Your task to perform on an android device: Open the stopwatch Image 0: 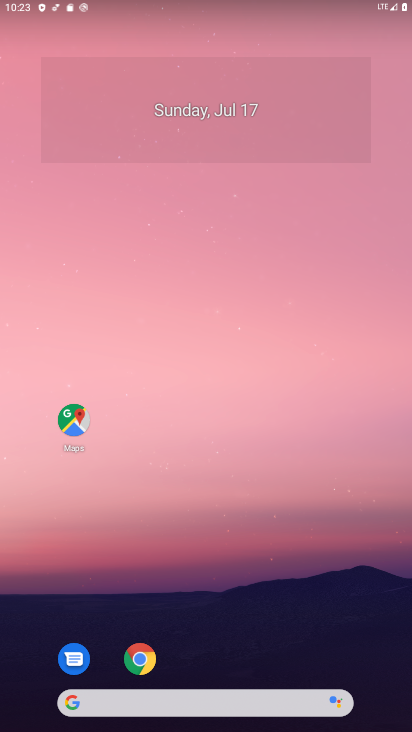
Step 0: drag from (183, 640) to (255, 122)
Your task to perform on an android device: Open the stopwatch Image 1: 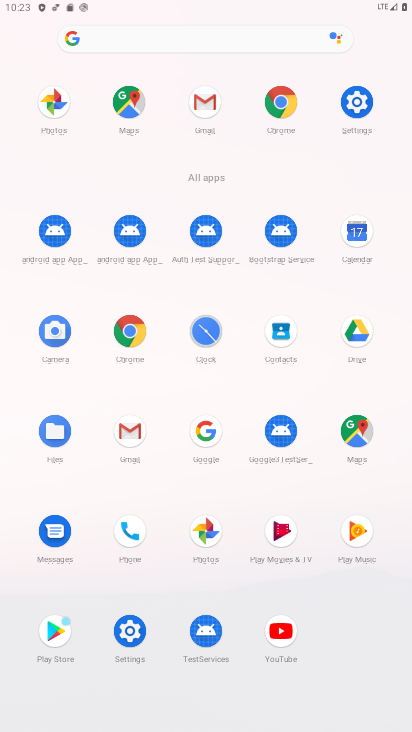
Step 1: click (192, 330)
Your task to perform on an android device: Open the stopwatch Image 2: 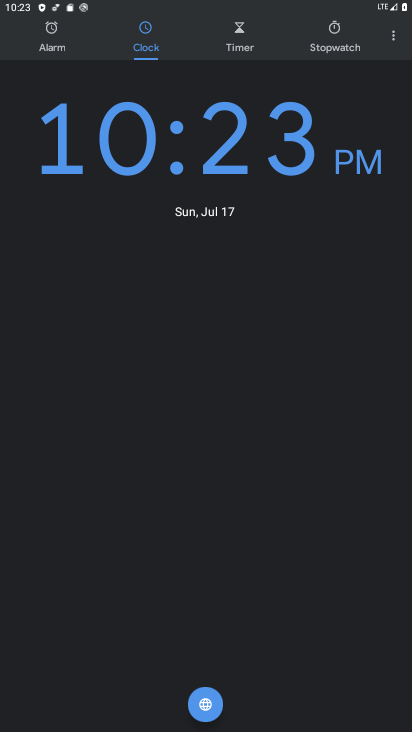
Step 2: click (335, 31)
Your task to perform on an android device: Open the stopwatch Image 3: 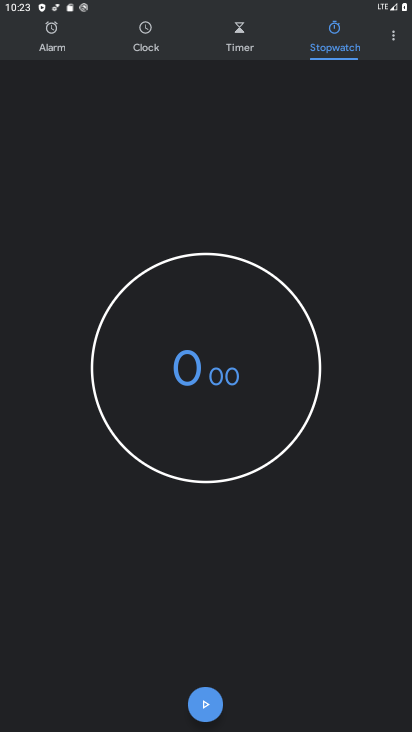
Step 3: task complete